Your task to perform on an android device: Go to network settings Image 0: 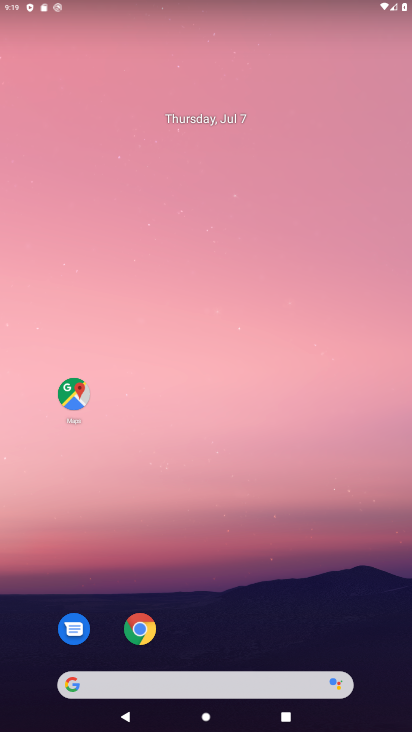
Step 0: drag from (235, 645) to (274, 188)
Your task to perform on an android device: Go to network settings Image 1: 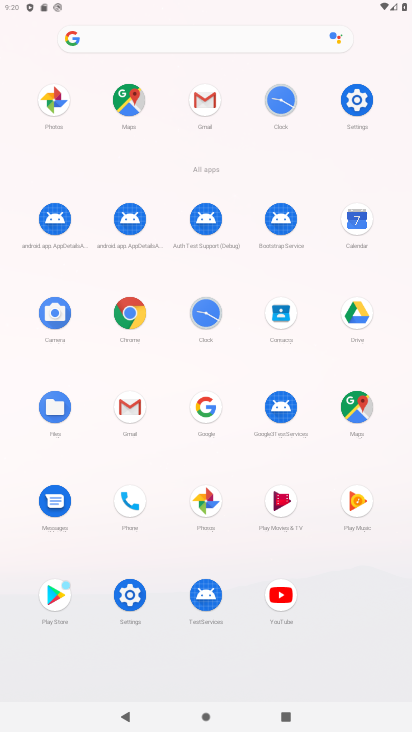
Step 1: click (117, 608)
Your task to perform on an android device: Go to network settings Image 2: 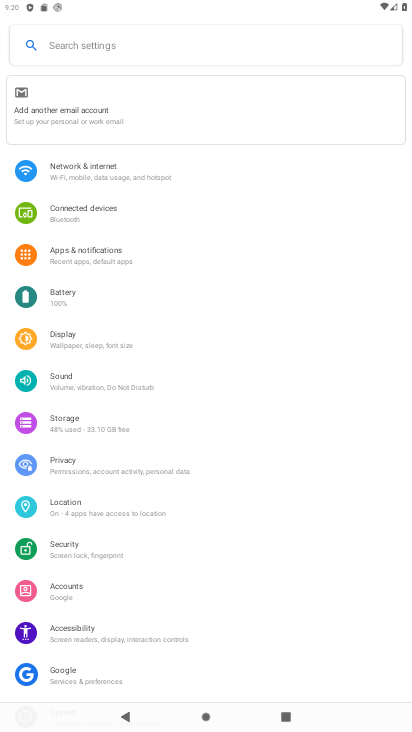
Step 2: click (105, 175)
Your task to perform on an android device: Go to network settings Image 3: 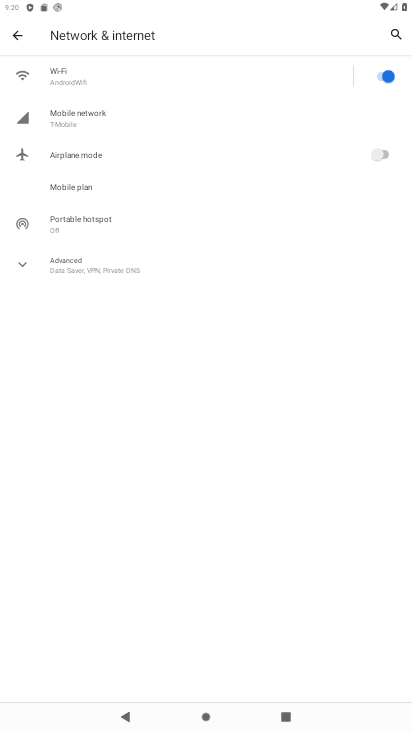
Step 3: click (107, 111)
Your task to perform on an android device: Go to network settings Image 4: 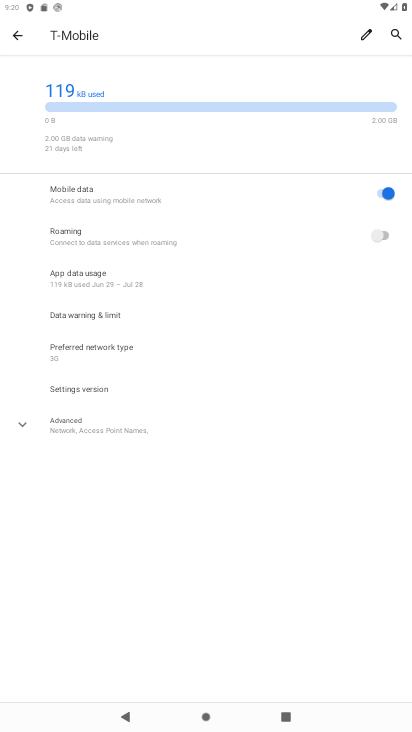
Step 4: task complete